Your task to perform on an android device: turn off improve location accuracy Image 0: 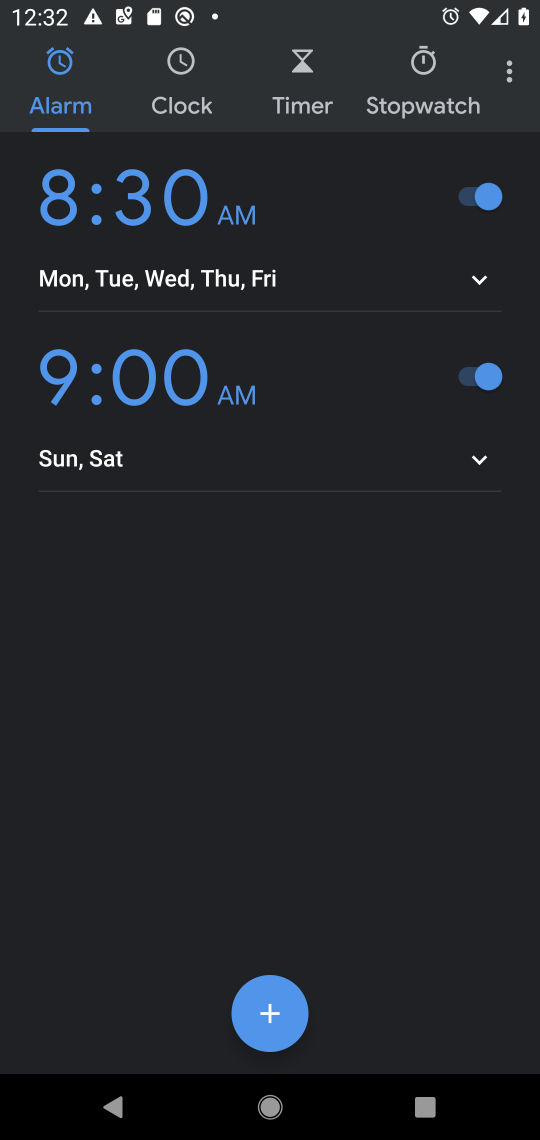
Step 0: press home button
Your task to perform on an android device: turn off improve location accuracy Image 1: 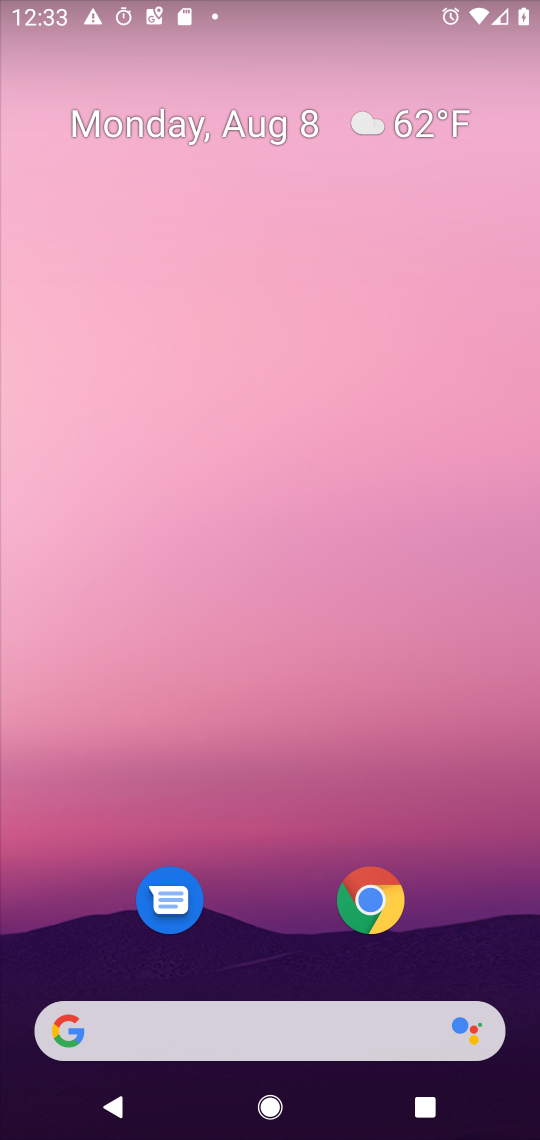
Step 1: drag from (288, 966) to (292, 229)
Your task to perform on an android device: turn off improve location accuracy Image 2: 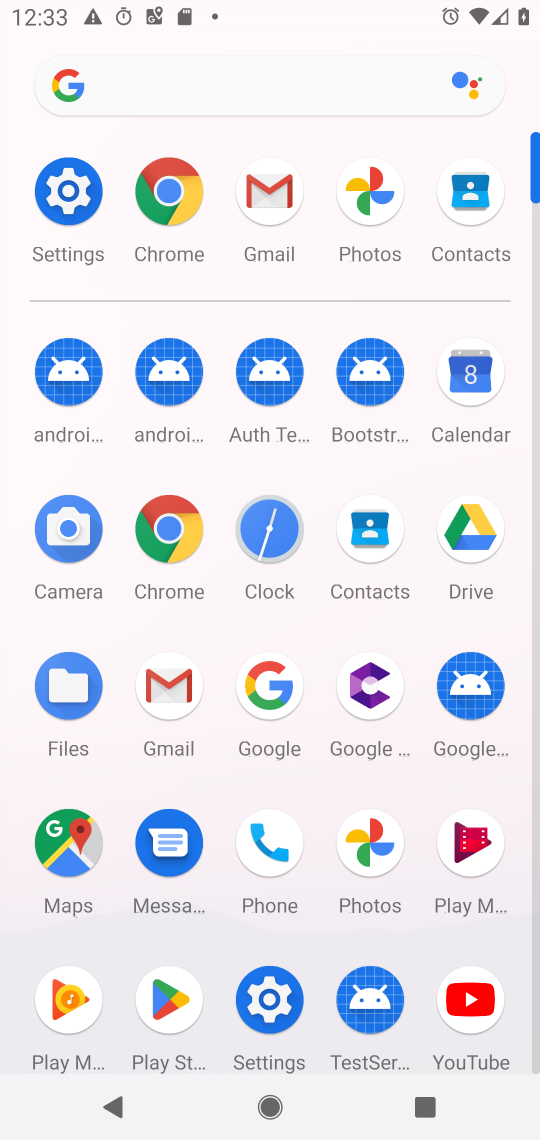
Step 2: click (73, 192)
Your task to perform on an android device: turn off improve location accuracy Image 3: 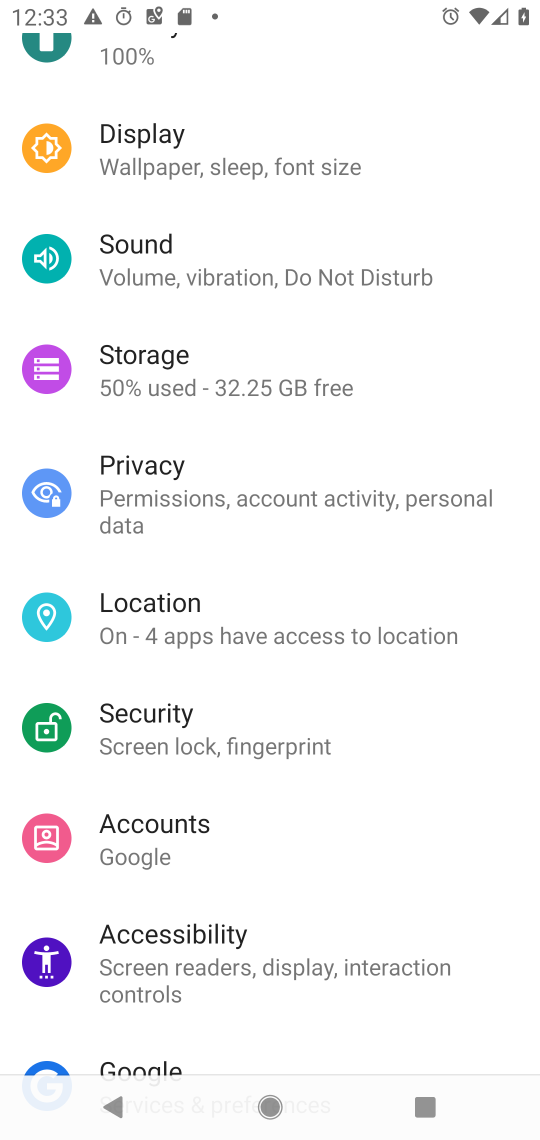
Step 3: click (203, 606)
Your task to perform on an android device: turn off improve location accuracy Image 4: 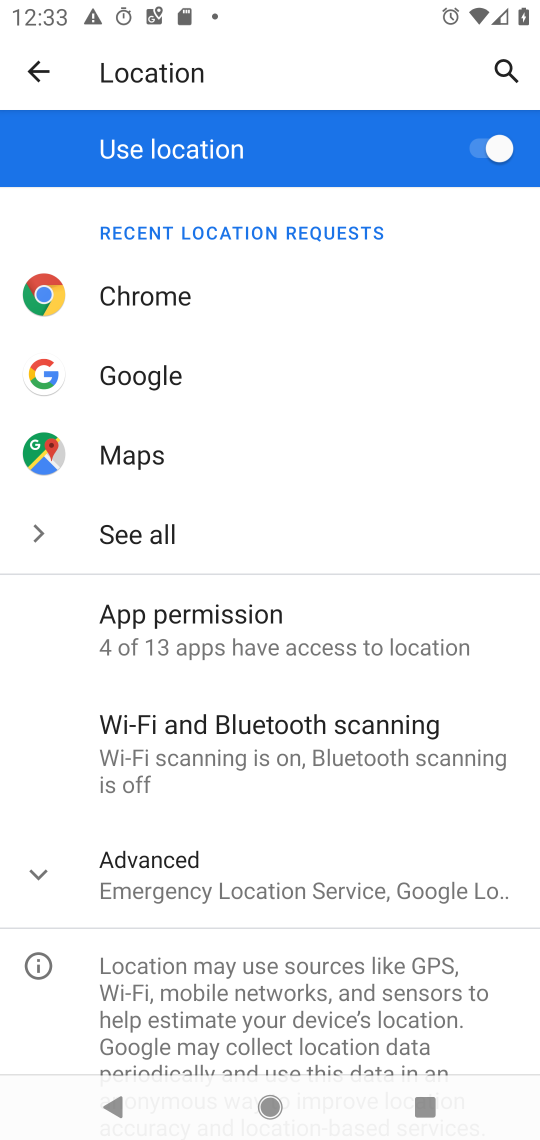
Step 4: click (29, 866)
Your task to perform on an android device: turn off improve location accuracy Image 5: 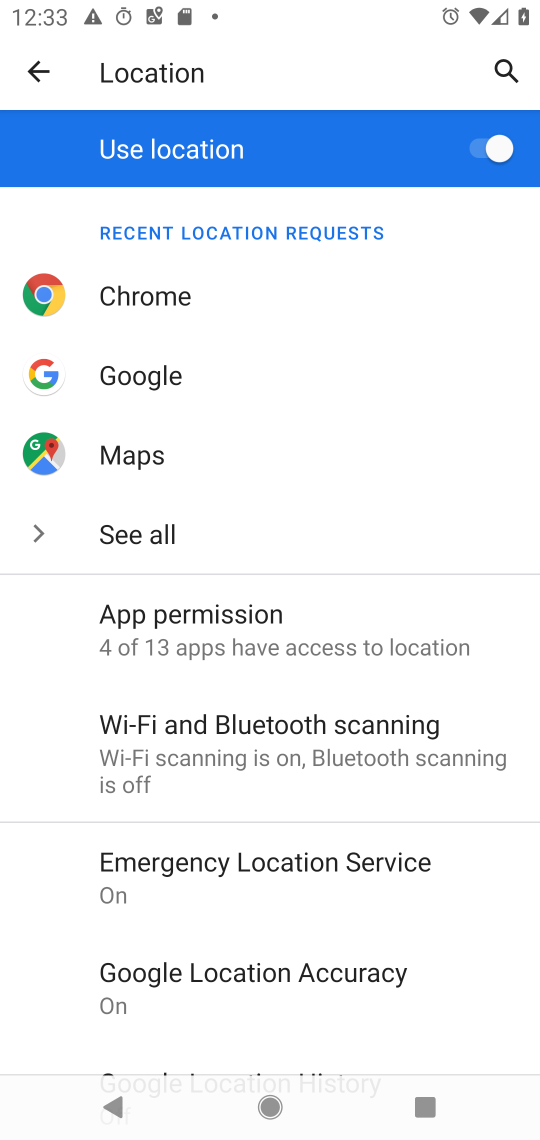
Step 5: click (248, 999)
Your task to perform on an android device: turn off improve location accuracy Image 6: 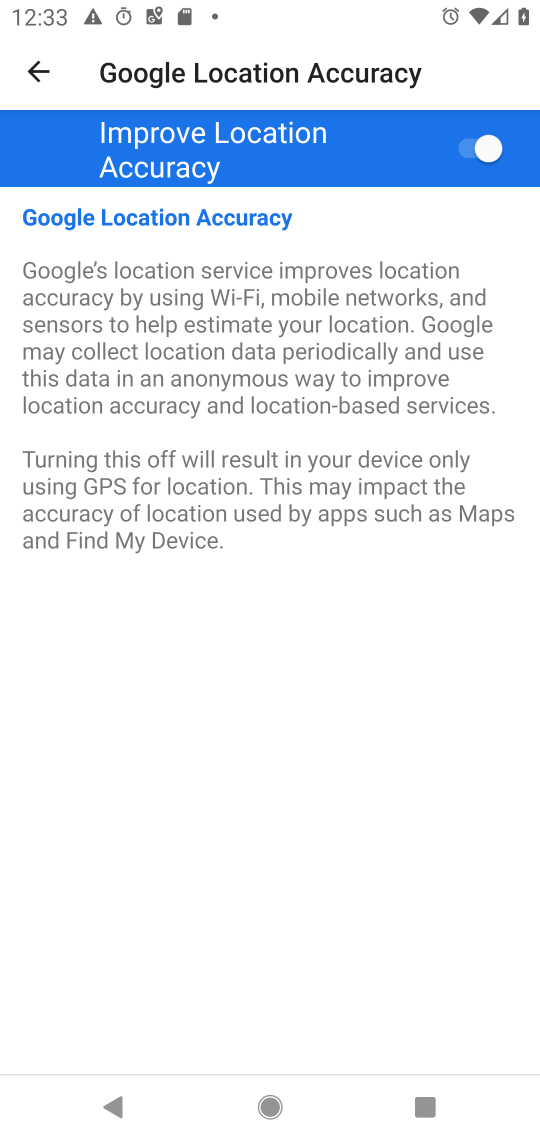
Step 6: click (474, 159)
Your task to perform on an android device: turn off improve location accuracy Image 7: 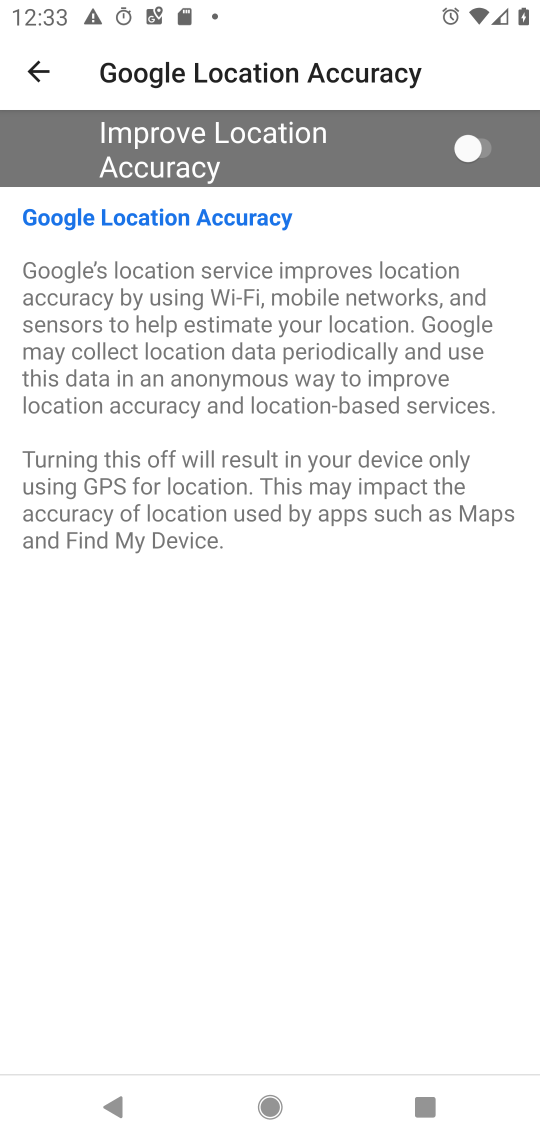
Step 7: task complete